Your task to perform on an android device: turn off improve location accuracy Image 0: 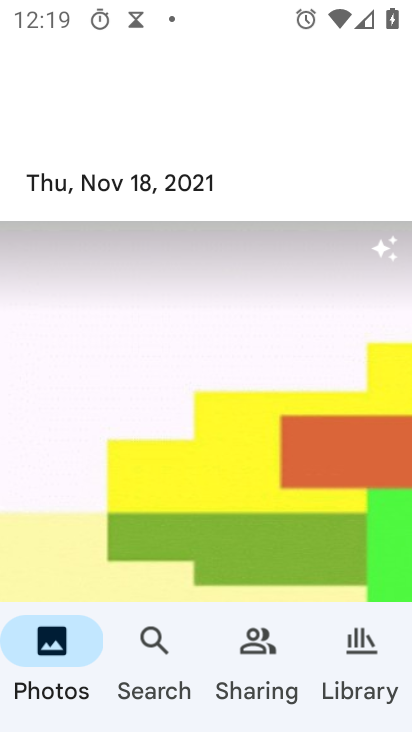
Step 0: press home button
Your task to perform on an android device: turn off improve location accuracy Image 1: 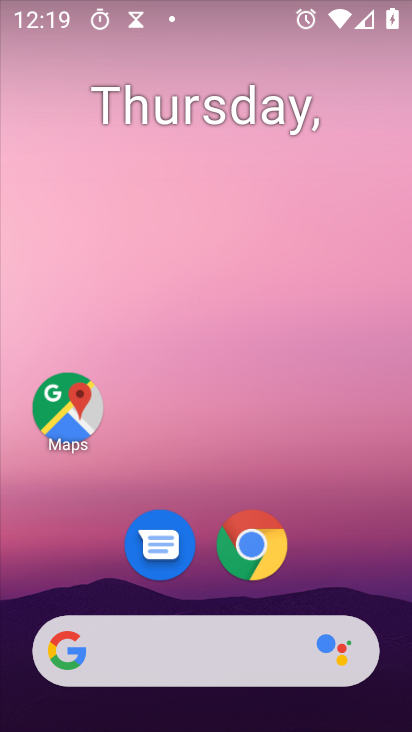
Step 1: press home button
Your task to perform on an android device: turn off improve location accuracy Image 2: 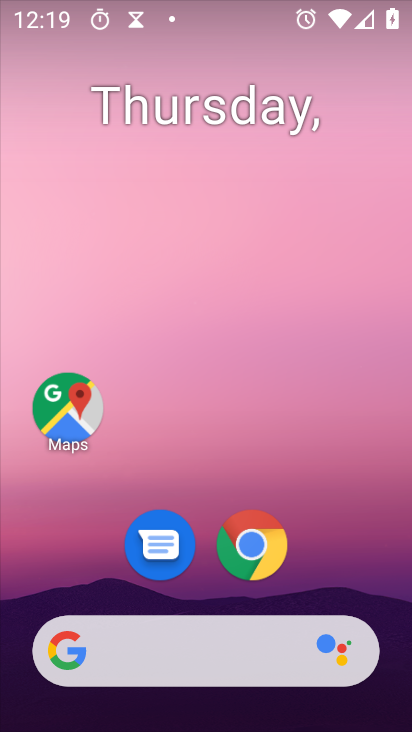
Step 2: drag from (155, 645) to (341, 104)
Your task to perform on an android device: turn off improve location accuracy Image 3: 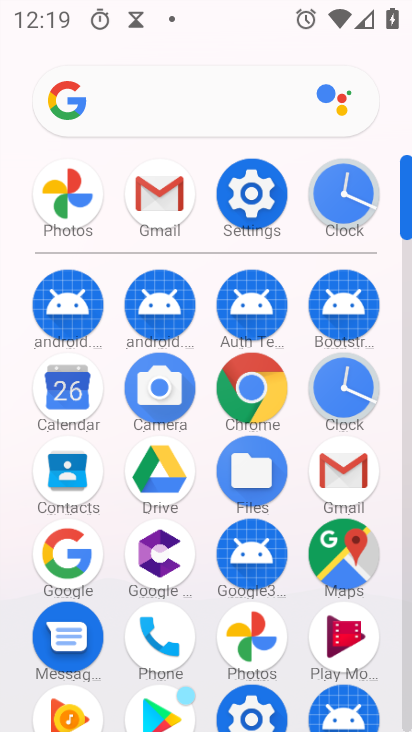
Step 3: drag from (235, 610) to (289, 386)
Your task to perform on an android device: turn off improve location accuracy Image 4: 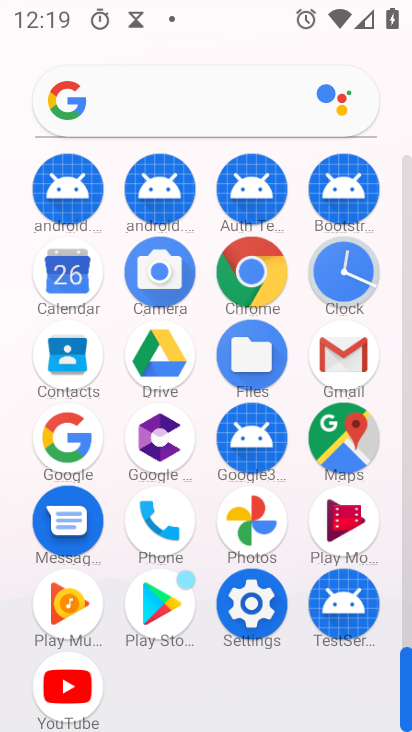
Step 4: click (247, 611)
Your task to perform on an android device: turn off improve location accuracy Image 5: 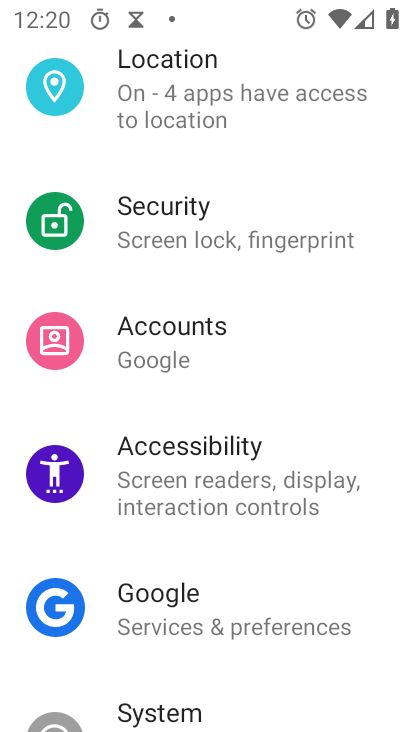
Step 5: click (202, 87)
Your task to perform on an android device: turn off improve location accuracy Image 6: 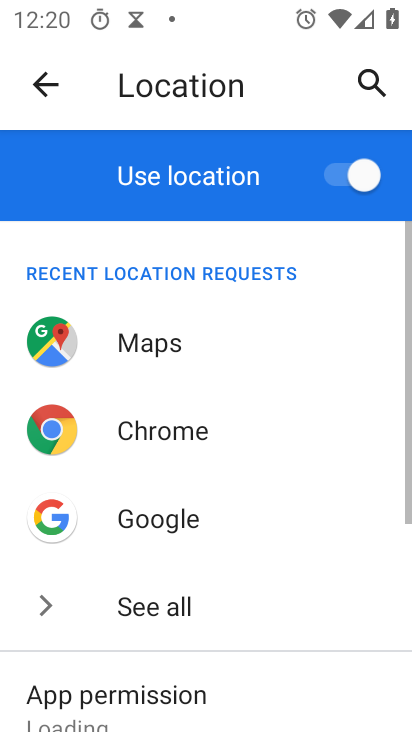
Step 6: drag from (244, 589) to (352, 241)
Your task to perform on an android device: turn off improve location accuracy Image 7: 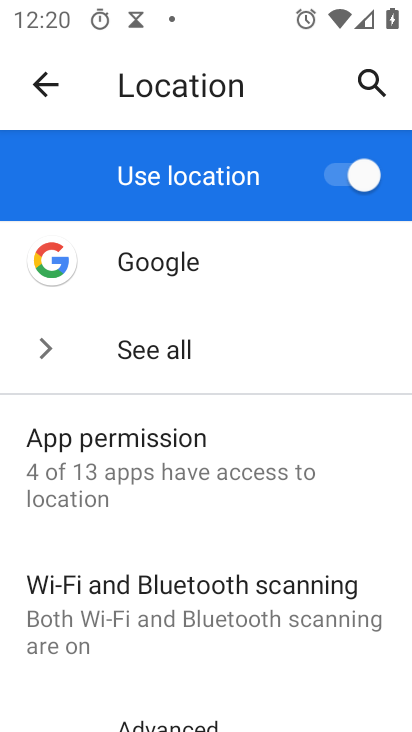
Step 7: drag from (269, 608) to (401, 148)
Your task to perform on an android device: turn off improve location accuracy Image 8: 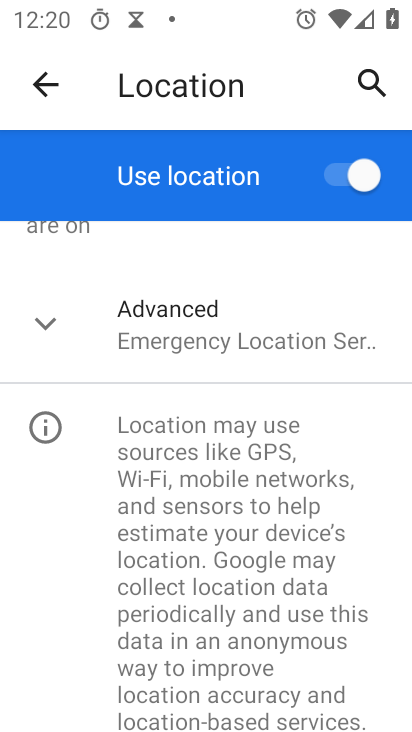
Step 8: click (191, 335)
Your task to perform on an android device: turn off improve location accuracy Image 9: 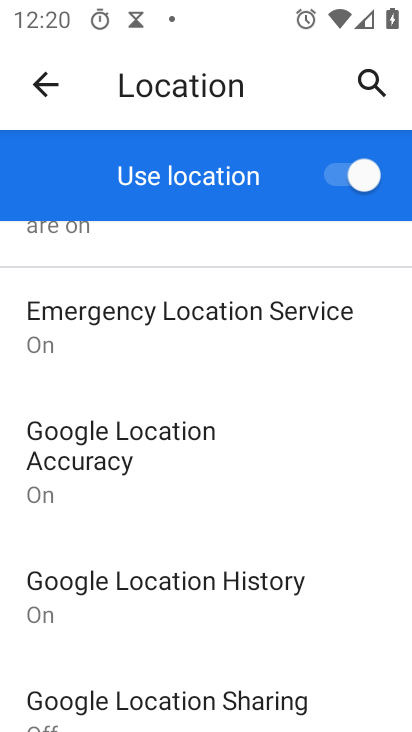
Step 9: click (117, 449)
Your task to perform on an android device: turn off improve location accuracy Image 10: 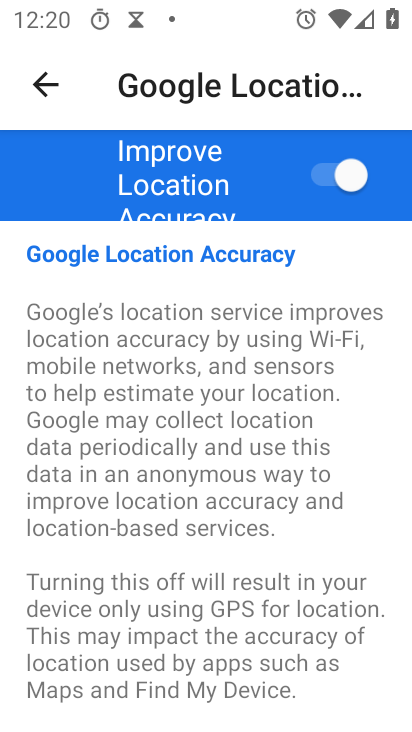
Step 10: click (323, 184)
Your task to perform on an android device: turn off improve location accuracy Image 11: 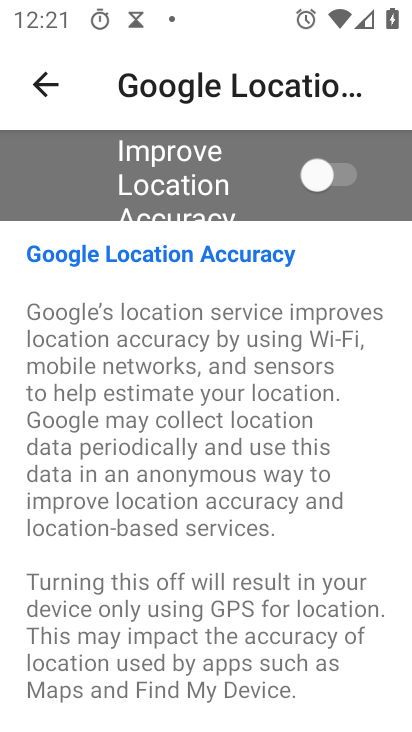
Step 11: task complete